Your task to perform on an android device: Open Android settings Image 0: 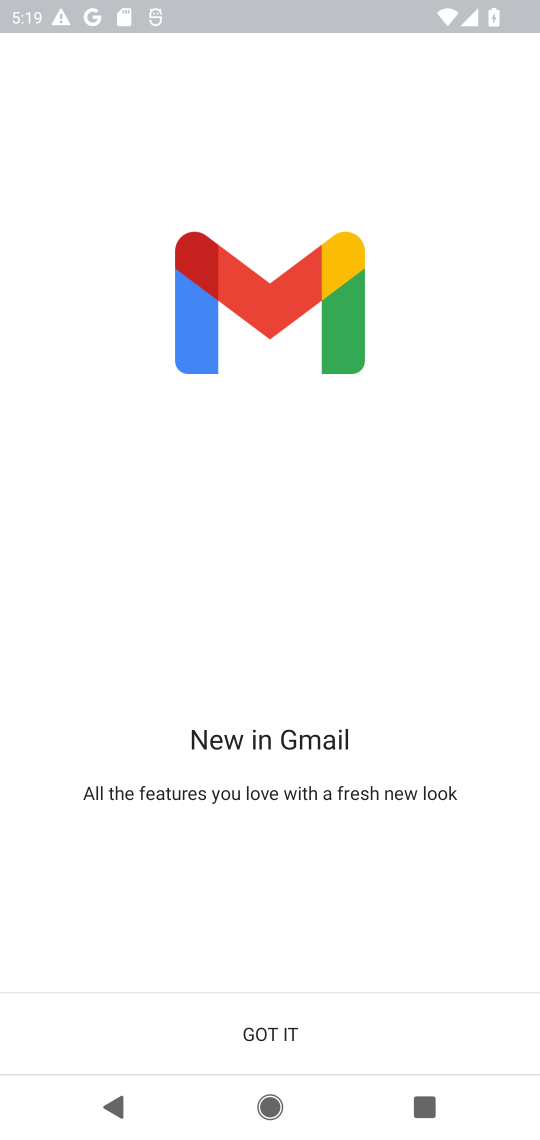
Step 0: click (257, 1027)
Your task to perform on an android device: Open Android settings Image 1: 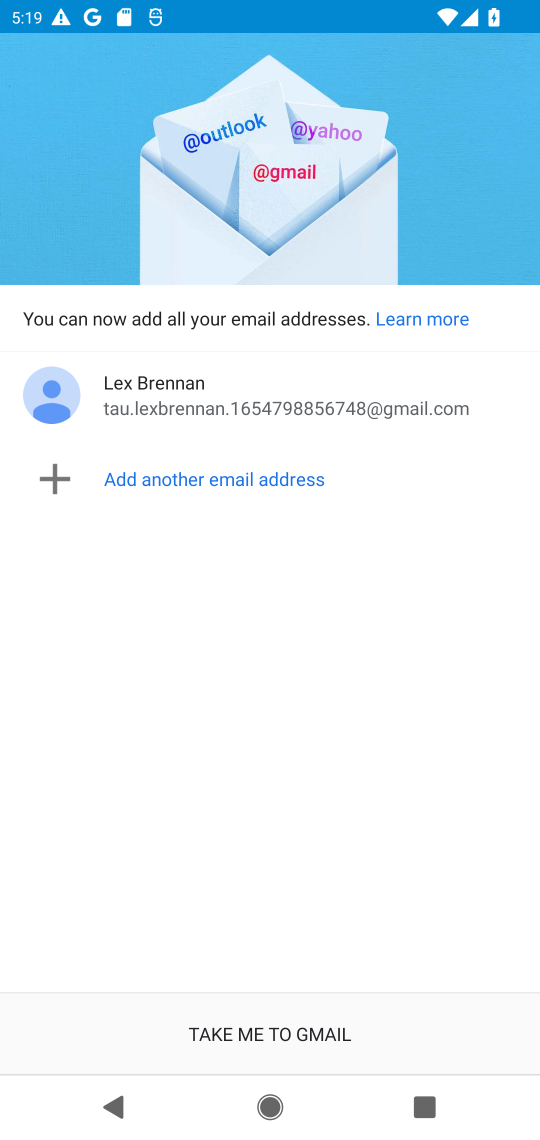
Step 1: click (242, 1025)
Your task to perform on an android device: Open Android settings Image 2: 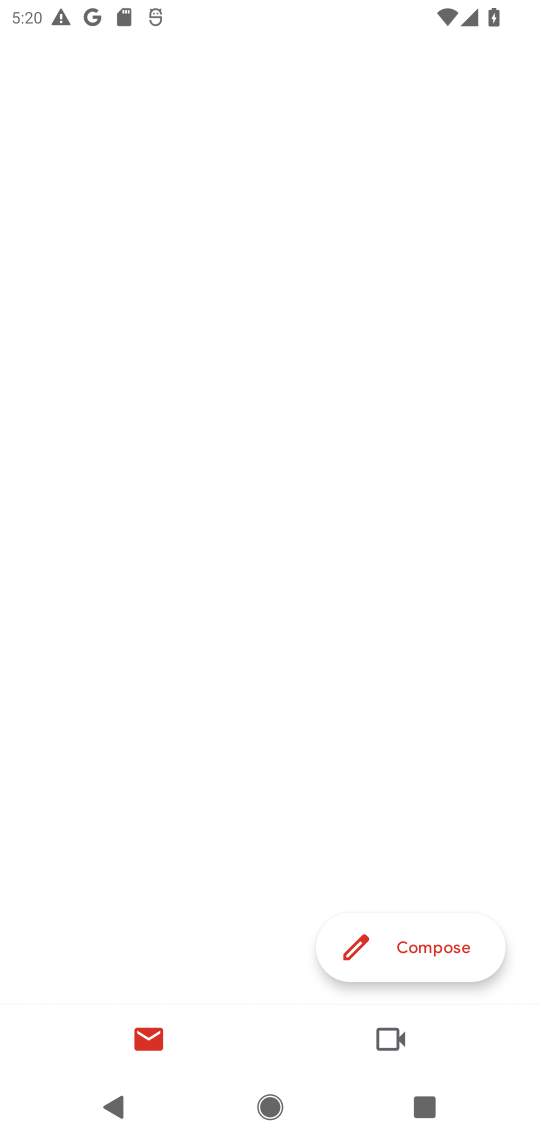
Step 2: task complete